Your task to perform on an android device: uninstall "Messages" Image 0: 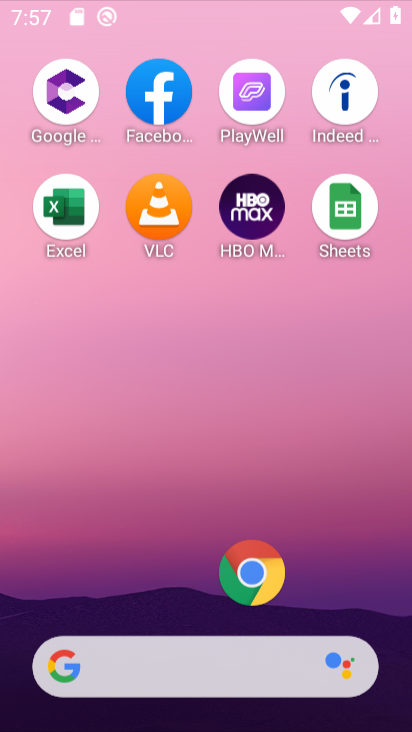
Step 0: click (158, 25)
Your task to perform on an android device: uninstall "Messages" Image 1: 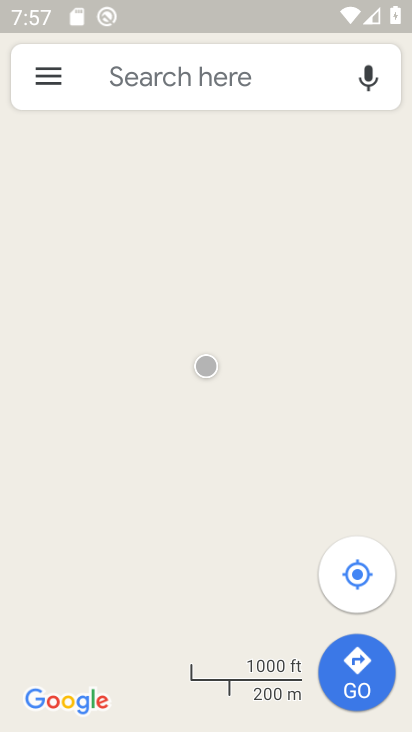
Step 1: press home button
Your task to perform on an android device: uninstall "Messages" Image 2: 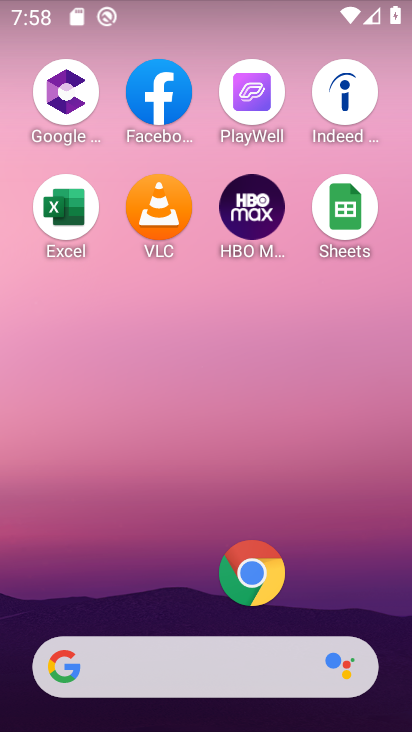
Step 2: drag from (194, 609) to (152, 4)
Your task to perform on an android device: uninstall "Messages" Image 3: 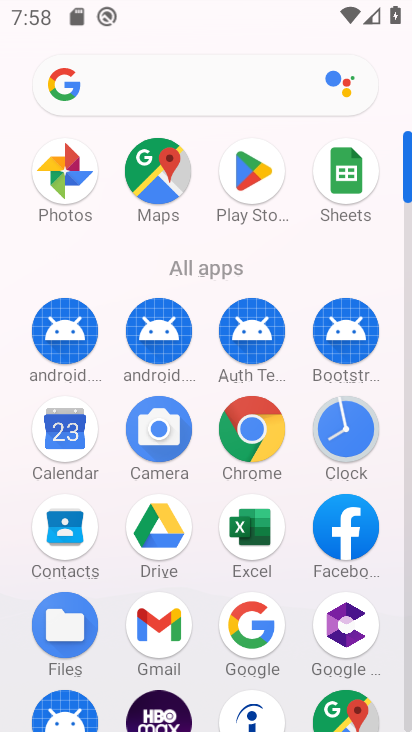
Step 3: click (253, 169)
Your task to perform on an android device: uninstall "Messages" Image 4: 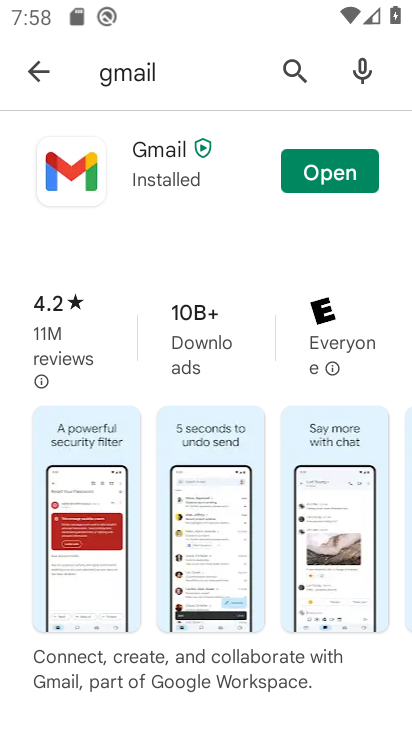
Step 4: click (42, 69)
Your task to perform on an android device: uninstall "Messages" Image 5: 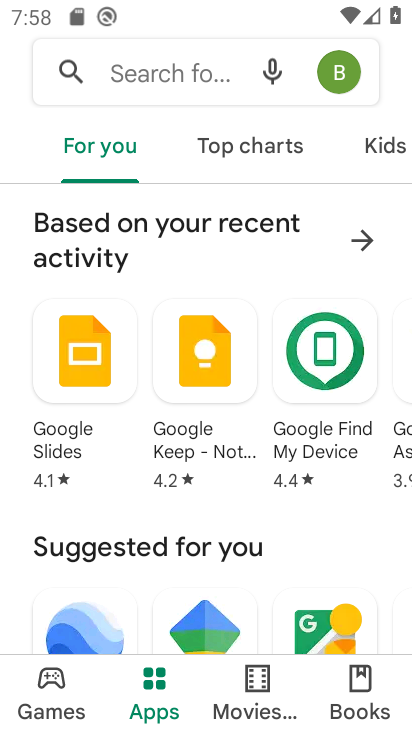
Step 5: click (115, 71)
Your task to perform on an android device: uninstall "Messages" Image 6: 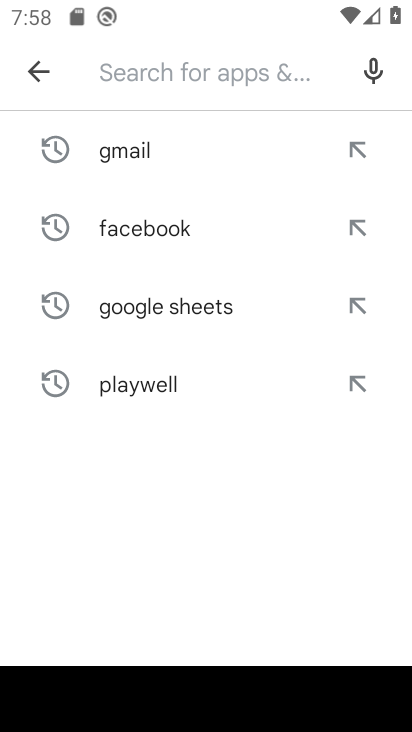
Step 6: type "Messages"
Your task to perform on an android device: uninstall "Messages" Image 7: 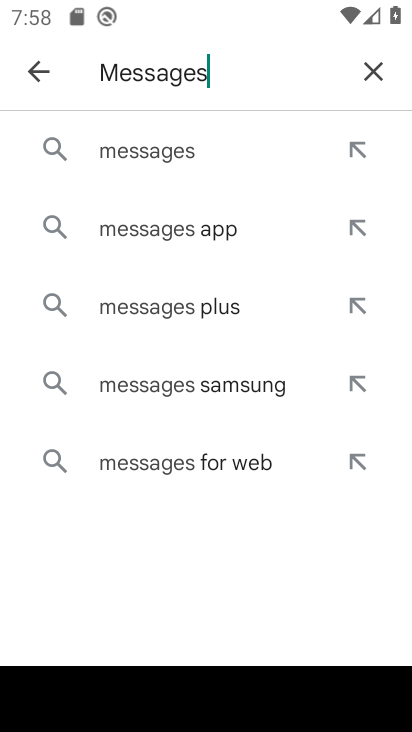
Step 7: click (161, 156)
Your task to perform on an android device: uninstall "Messages" Image 8: 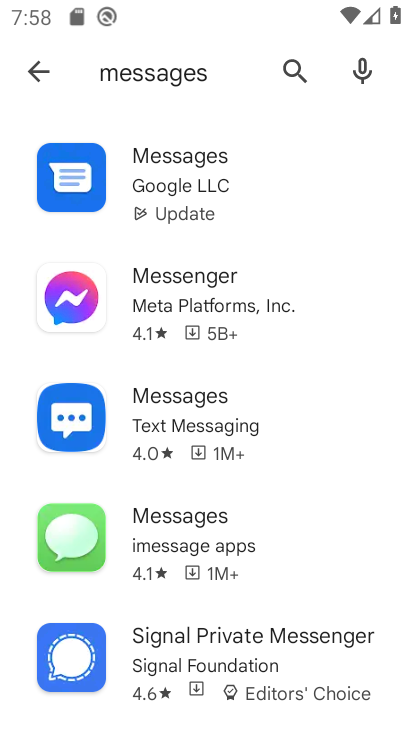
Step 8: click (147, 181)
Your task to perform on an android device: uninstall "Messages" Image 9: 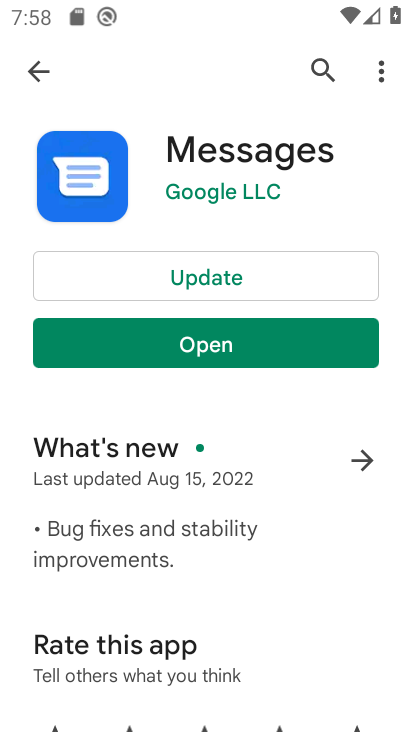
Step 9: click (198, 273)
Your task to perform on an android device: uninstall "Messages" Image 10: 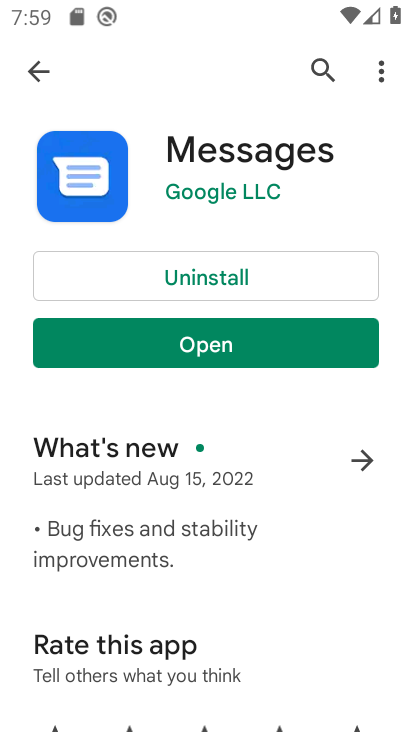
Step 10: click (210, 278)
Your task to perform on an android device: uninstall "Messages" Image 11: 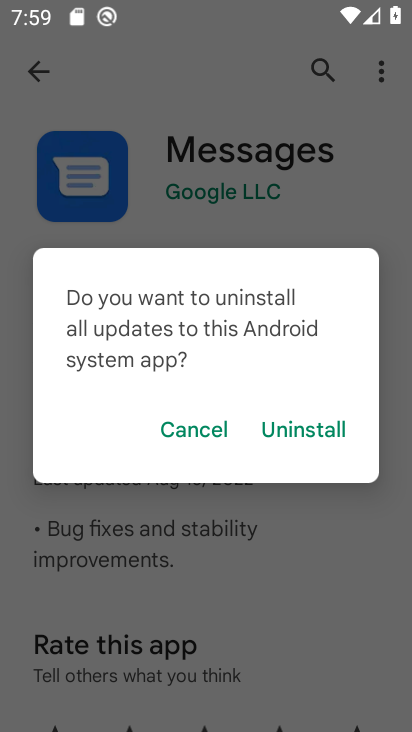
Step 11: click (286, 433)
Your task to perform on an android device: uninstall "Messages" Image 12: 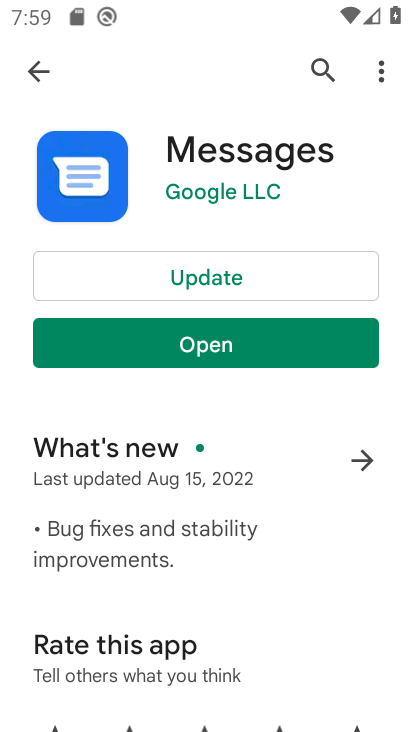
Step 12: task complete